Your task to perform on an android device: What's the weather today? Image 0: 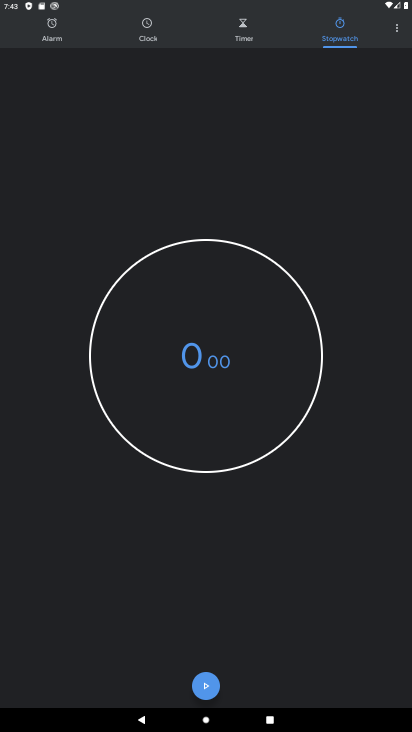
Step 0: press home button
Your task to perform on an android device: What's the weather today? Image 1: 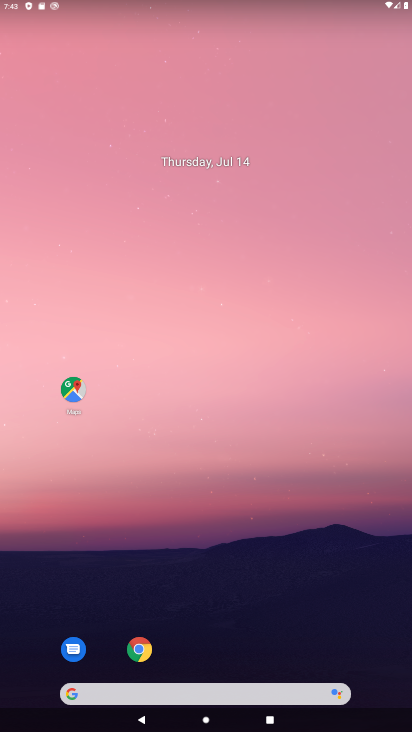
Step 1: drag from (270, 528) to (180, 0)
Your task to perform on an android device: What's the weather today? Image 2: 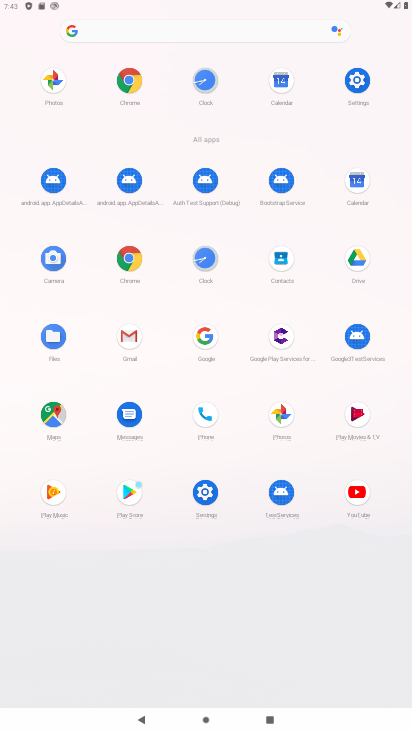
Step 2: click (210, 330)
Your task to perform on an android device: What's the weather today? Image 3: 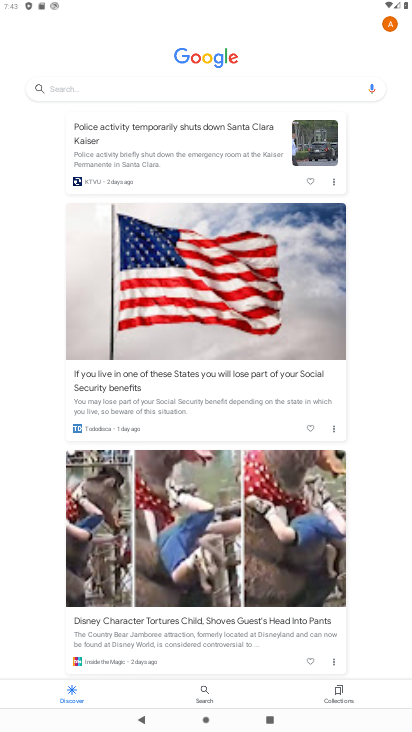
Step 3: click (148, 74)
Your task to perform on an android device: What's the weather today? Image 4: 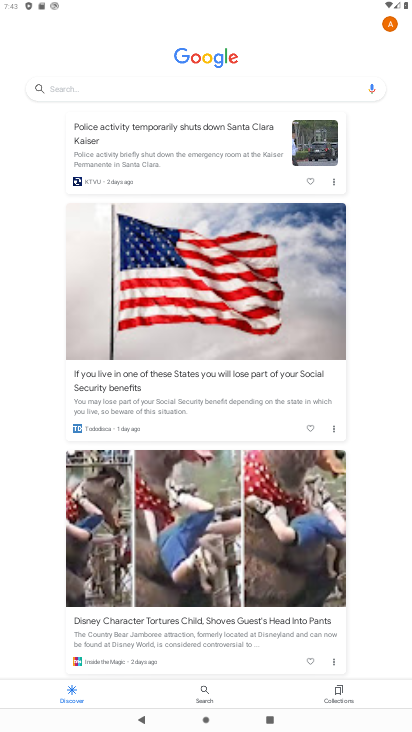
Step 4: click (140, 87)
Your task to perform on an android device: What's the weather today? Image 5: 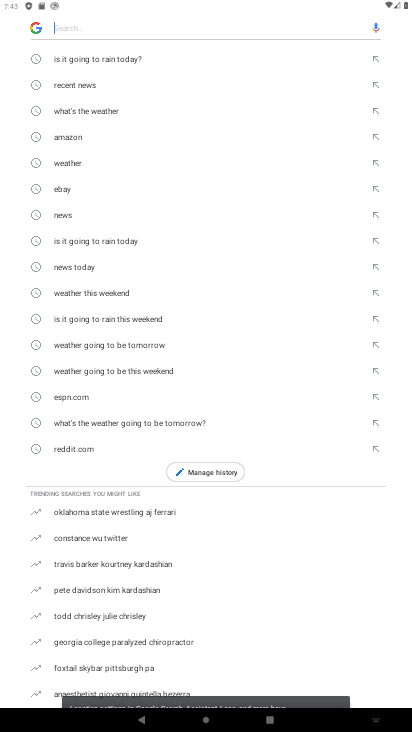
Step 5: click (74, 162)
Your task to perform on an android device: What's the weather today? Image 6: 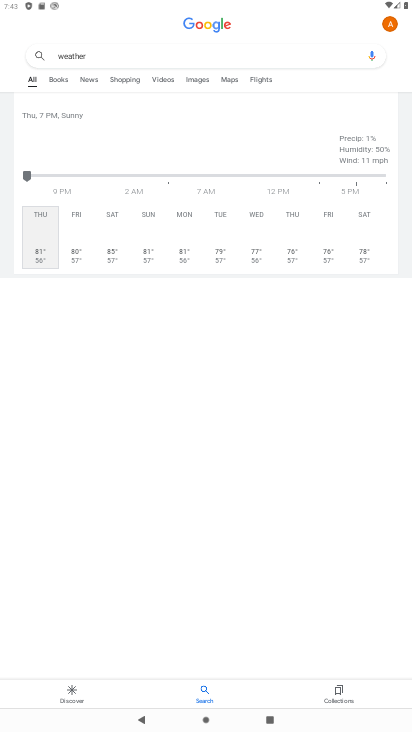
Step 6: task complete